Your task to perform on an android device: turn notification dots off Image 0: 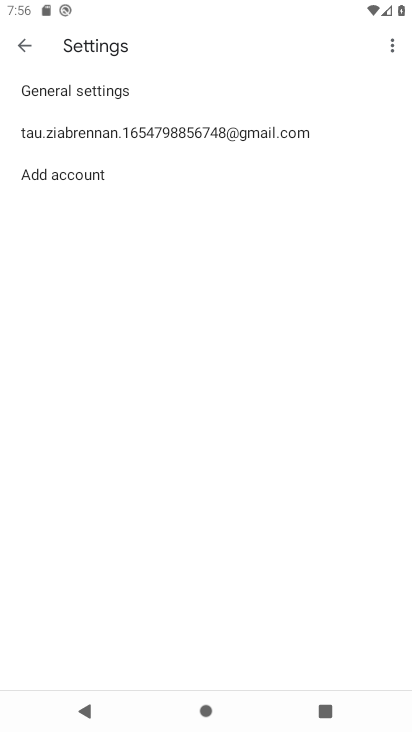
Step 0: press home button
Your task to perform on an android device: turn notification dots off Image 1: 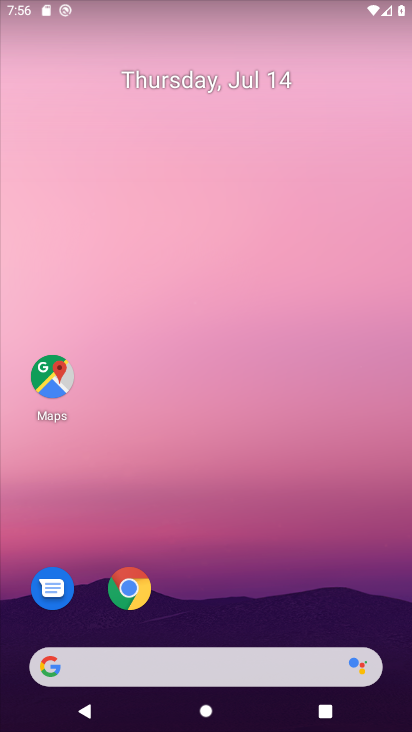
Step 1: drag from (302, 587) to (356, 79)
Your task to perform on an android device: turn notification dots off Image 2: 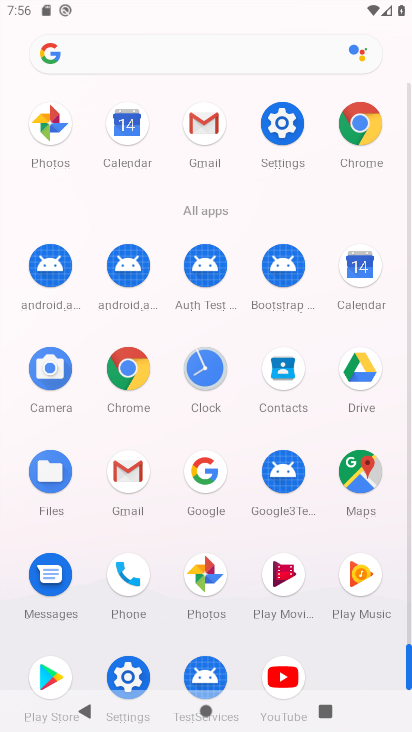
Step 2: click (274, 119)
Your task to perform on an android device: turn notification dots off Image 3: 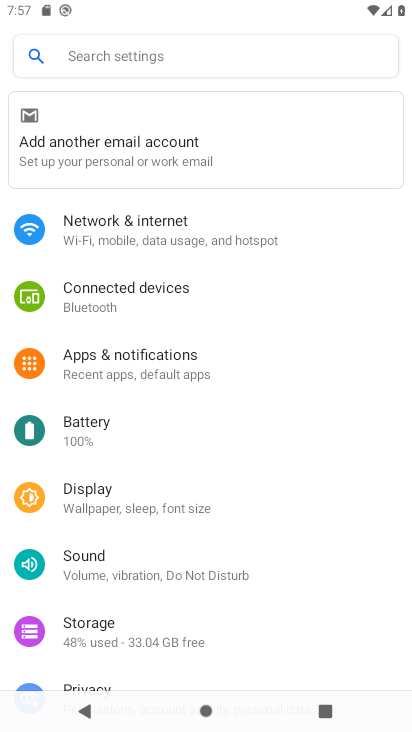
Step 3: drag from (318, 413) to (336, 329)
Your task to perform on an android device: turn notification dots off Image 4: 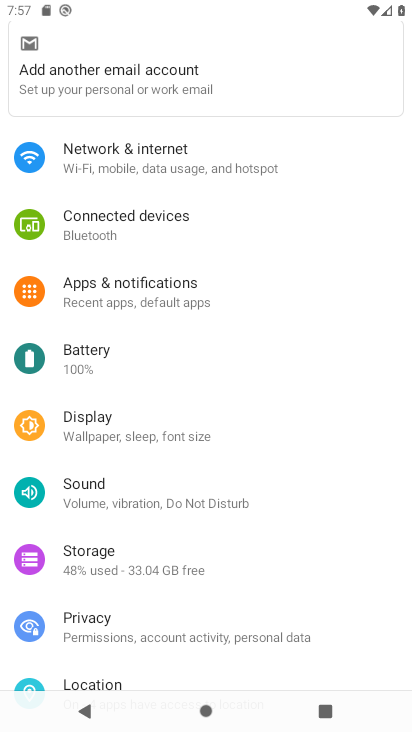
Step 4: drag from (353, 402) to (363, 337)
Your task to perform on an android device: turn notification dots off Image 5: 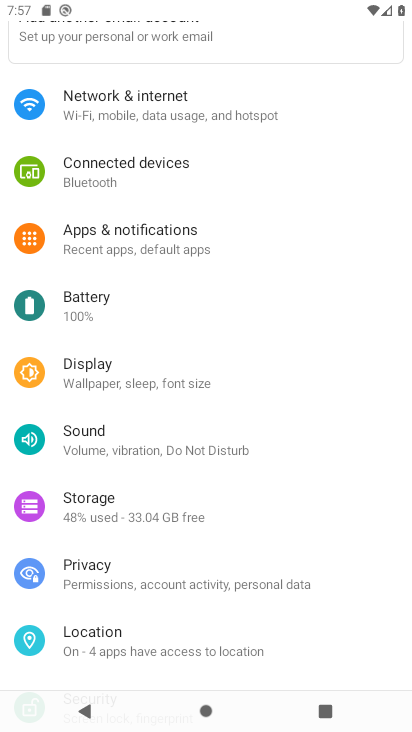
Step 5: drag from (349, 431) to (356, 347)
Your task to perform on an android device: turn notification dots off Image 6: 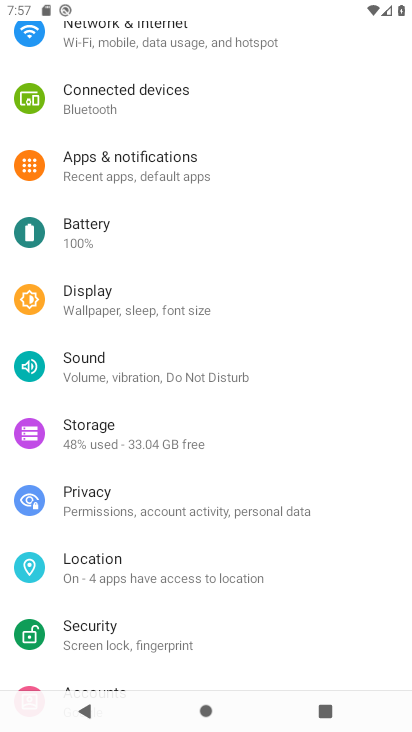
Step 6: drag from (342, 453) to (342, 371)
Your task to perform on an android device: turn notification dots off Image 7: 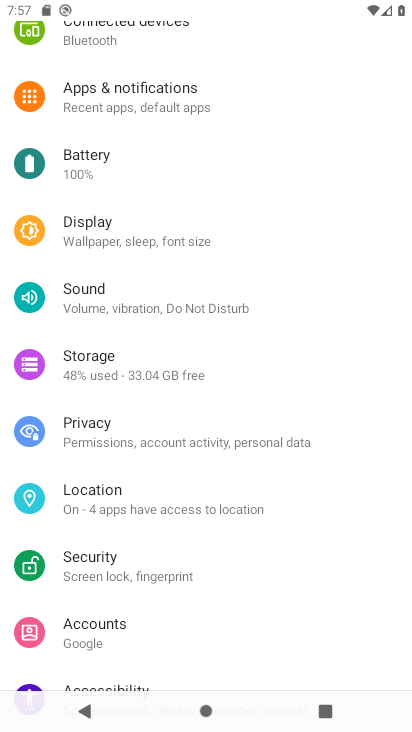
Step 7: drag from (343, 434) to (344, 366)
Your task to perform on an android device: turn notification dots off Image 8: 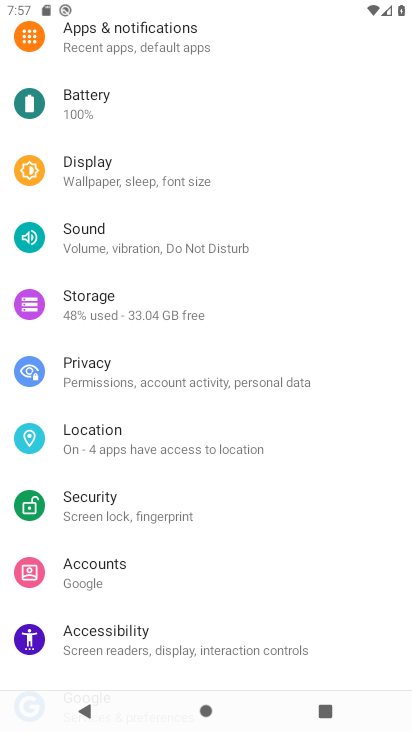
Step 8: drag from (338, 479) to (348, 385)
Your task to perform on an android device: turn notification dots off Image 9: 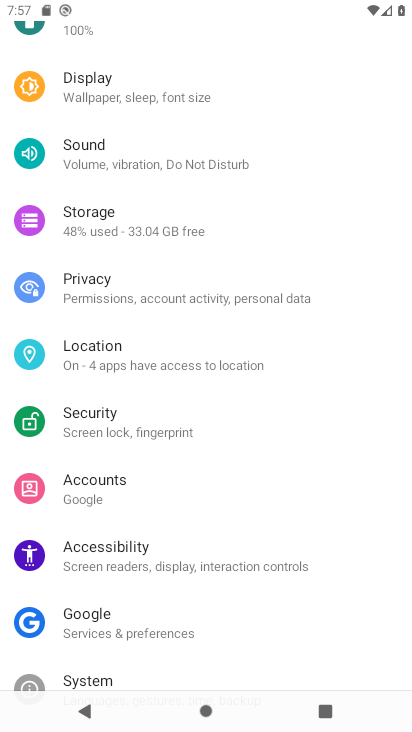
Step 9: drag from (350, 478) to (350, 352)
Your task to perform on an android device: turn notification dots off Image 10: 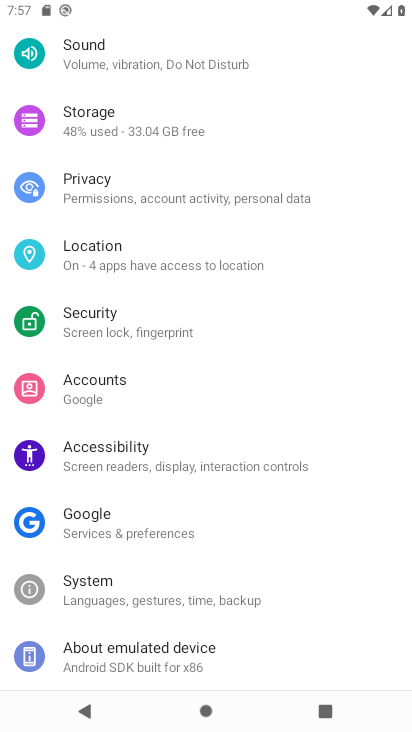
Step 10: drag from (352, 488) to (367, 374)
Your task to perform on an android device: turn notification dots off Image 11: 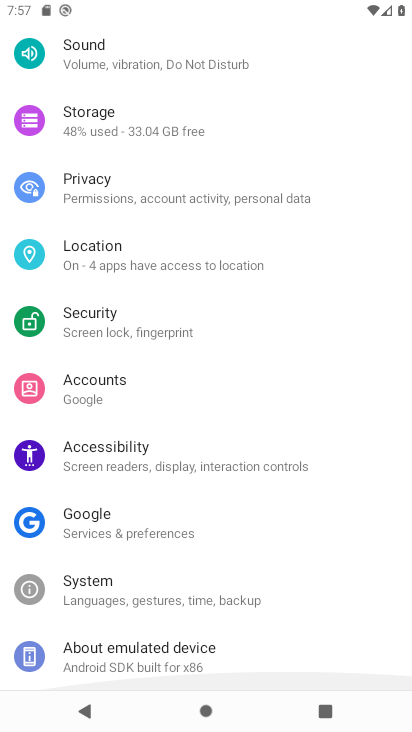
Step 11: drag from (367, 304) to (368, 369)
Your task to perform on an android device: turn notification dots off Image 12: 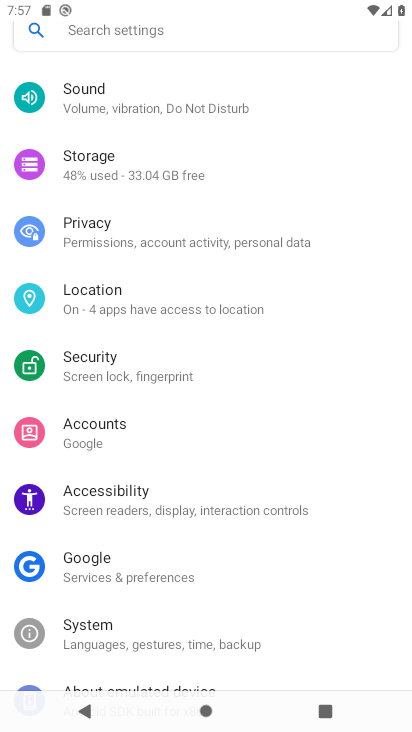
Step 12: drag from (364, 312) to (362, 415)
Your task to perform on an android device: turn notification dots off Image 13: 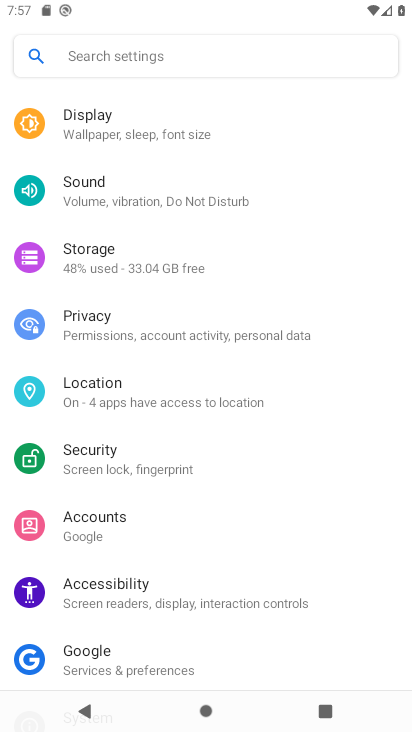
Step 13: drag from (369, 303) to (369, 365)
Your task to perform on an android device: turn notification dots off Image 14: 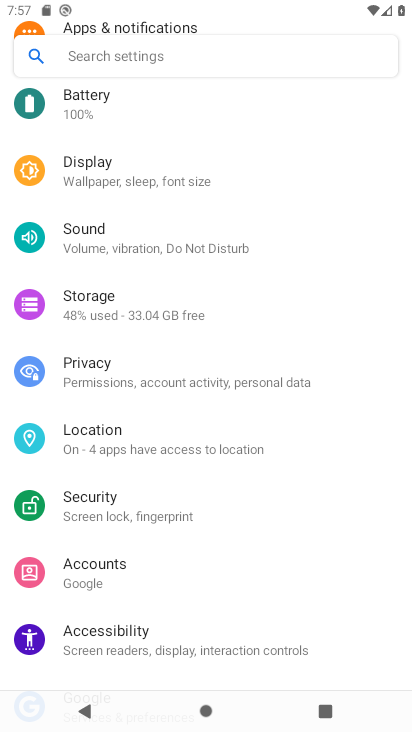
Step 14: drag from (368, 278) to (365, 339)
Your task to perform on an android device: turn notification dots off Image 15: 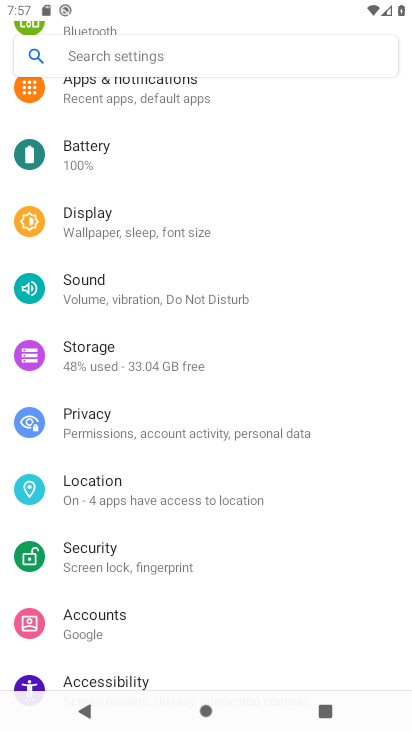
Step 15: drag from (366, 280) to (366, 356)
Your task to perform on an android device: turn notification dots off Image 16: 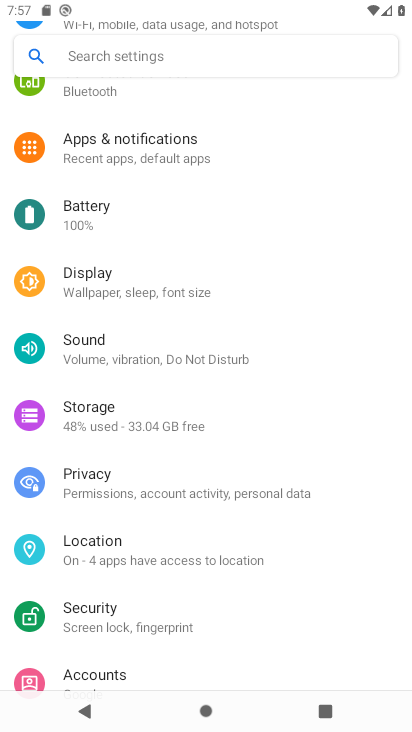
Step 16: drag from (360, 291) to (362, 354)
Your task to perform on an android device: turn notification dots off Image 17: 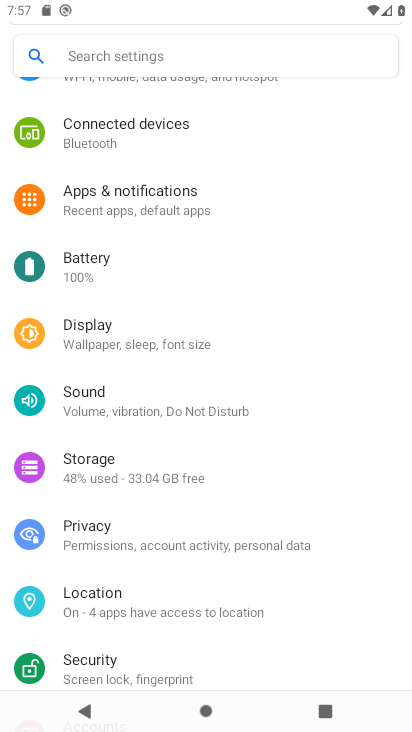
Step 17: drag from (364, 291) to (363, 353)
Your task to perform on an android device: turn notification dots off Image 18: 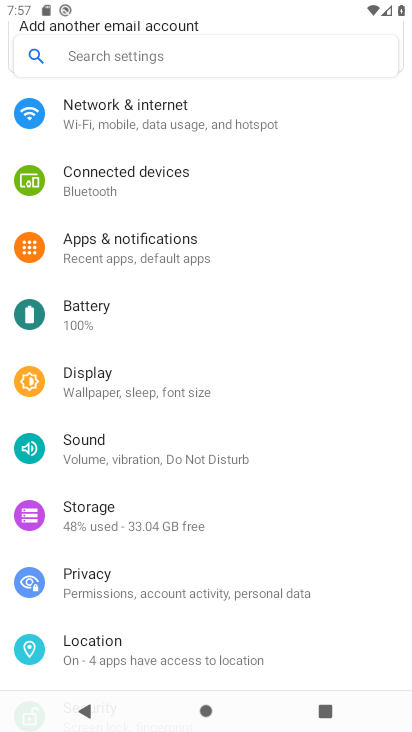
Step 18: drag from (362, 286) to (366, 449)
Your task to perform on an android device: turn notification dots off Image 19: 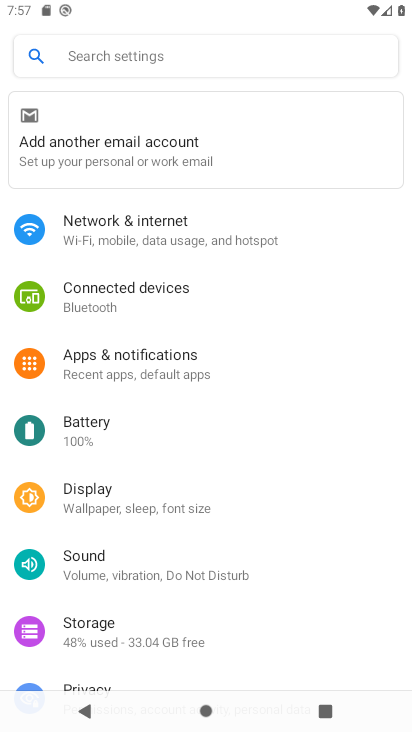
Step 19: click (221, 366)
Your task to perform on an android device: turn notification dots off Image 20: 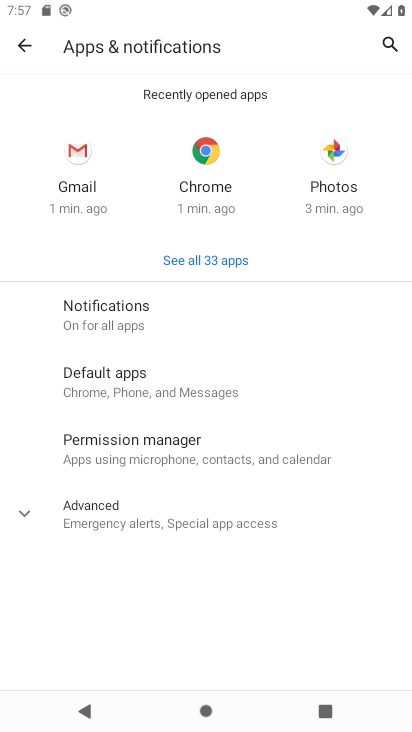
Step 20: click (303, 321)
Your task to perform on an android device: turn notification dots off Image 21: 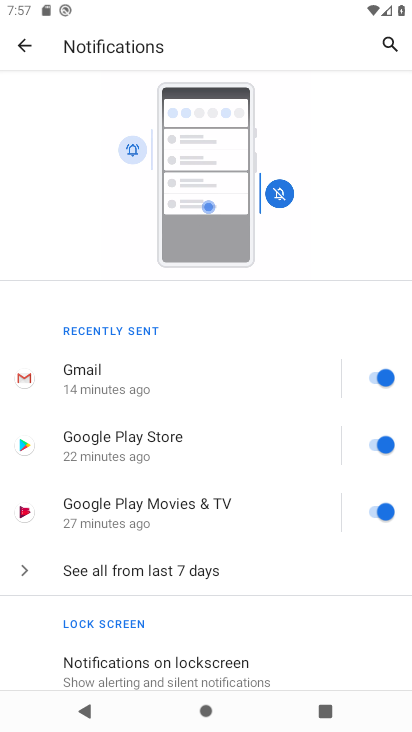
Step 21: drag from (308, 437) to (307, 359)
Your task to perform on an android device: turn notification dots off Image 22: 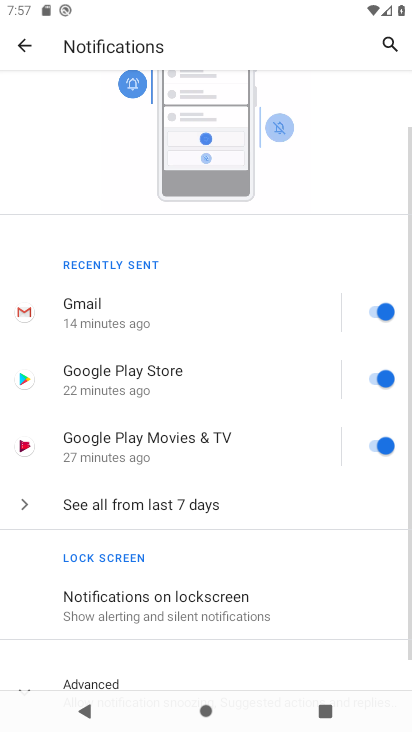
Step 22: drag from (299, 465) to (302, 367)
Your task to perform on an android device: turn notification dots off Image 23: 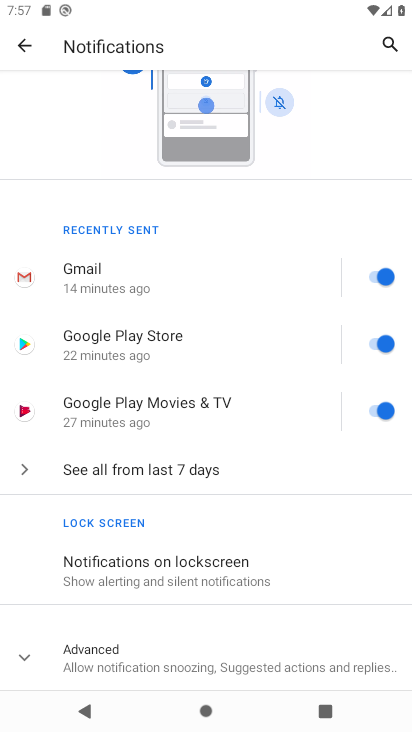
Step 23: click (287, 653)
Your task to perform on an android device: turn notification dots off Image 24: 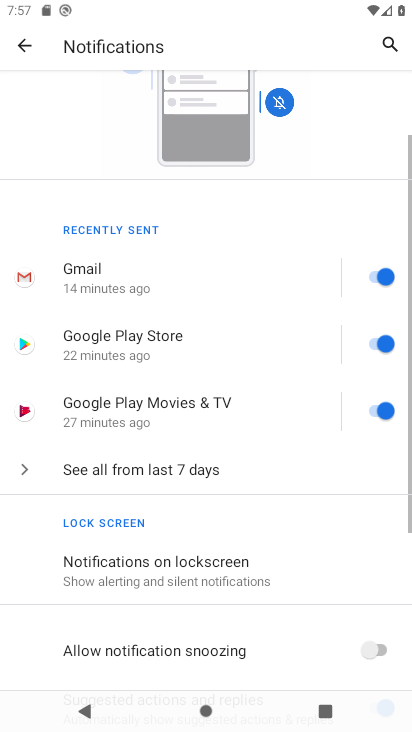
Step 24: task complete